Your task to perform on an android device: turn smart compose on in the gmail app Image 0: 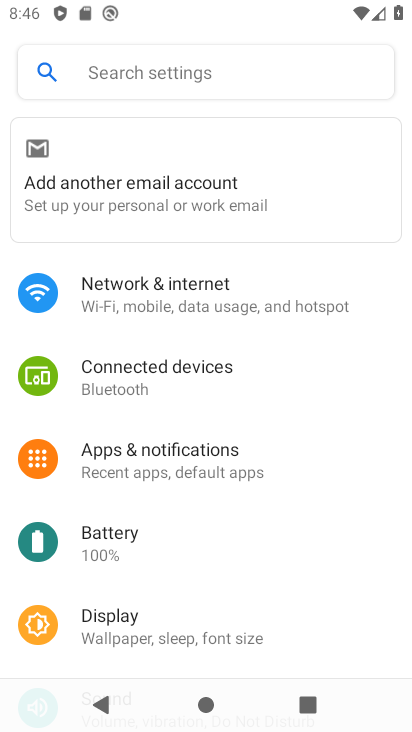
Step 0: press home button
Your task to perform on an android device: turn smart compose on in the gmail app Image 1: 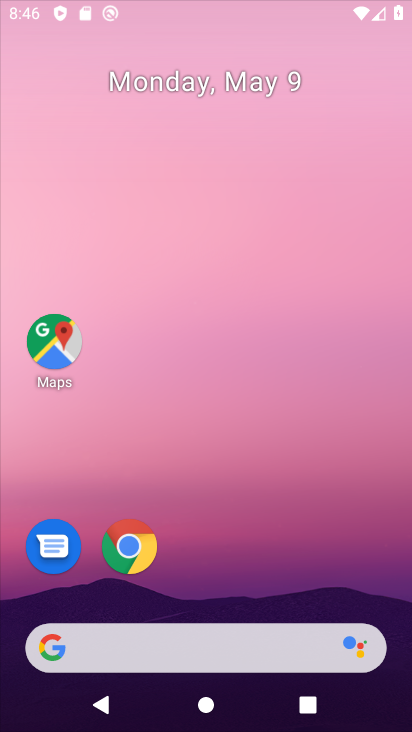
Step 1: drag from (296, 548) to (273, 64)
Your task to perform on an android device: turn smart compose on in the gmail app Image 2: 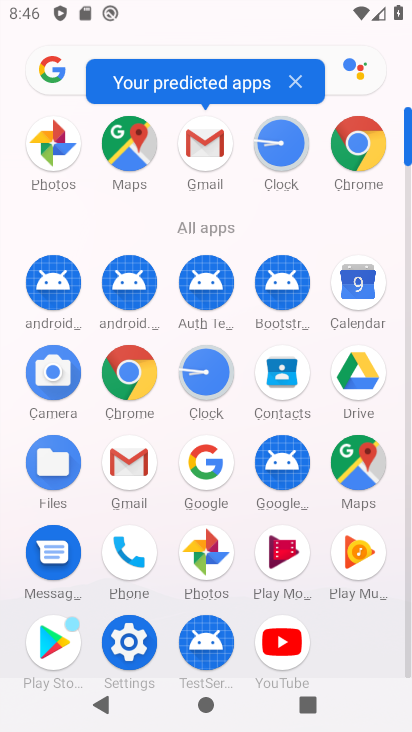
Step 2: click (143, 456)
Your task to perform on an android device: turn smart compose on in the gmail app Image 3: 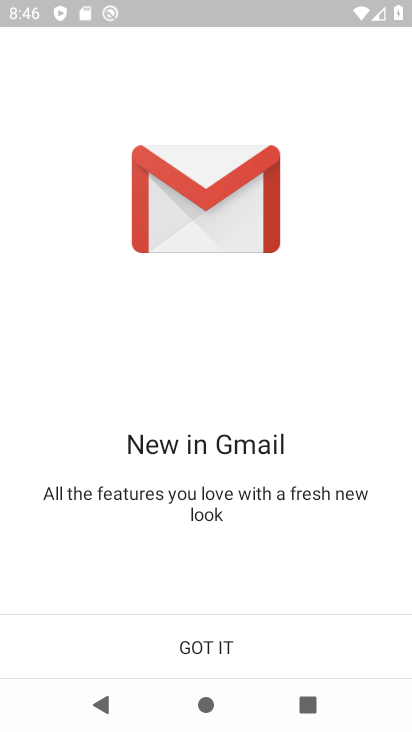
Step 3: click (214, 642)
Your task to perform on an android device: turn smart compose on in the gmail app Image 4: 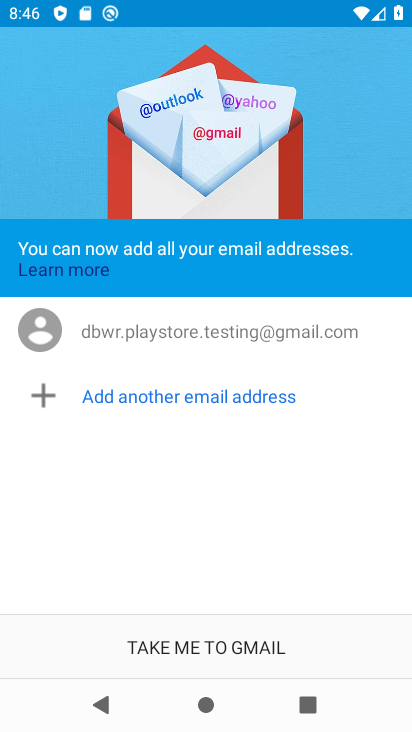
Step 4: click (288, 648)
Your task to perform on an android device: turn smart compose on in the gmail app Image 5: 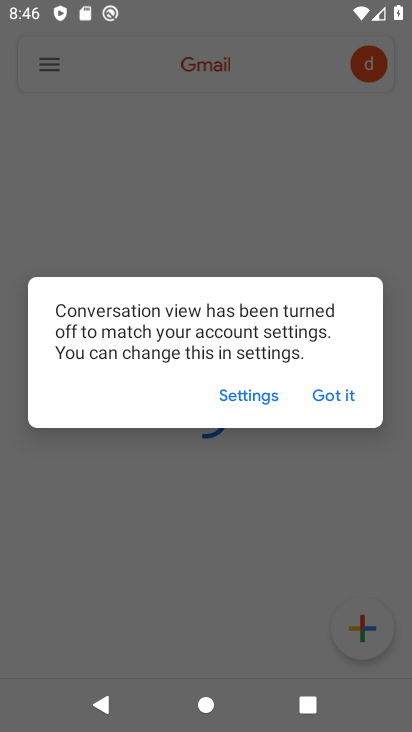
Step 5: click (327, 396)
Your task to perform on an android device: turn smart compose on in the gmail app Image 6: 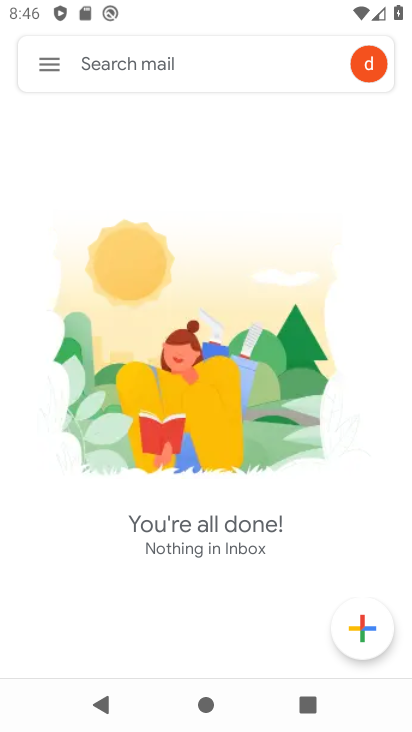
Step 6: click (55, 60)
Your task to perform on an android device: turn smart compose on in the gmail app Image 7: 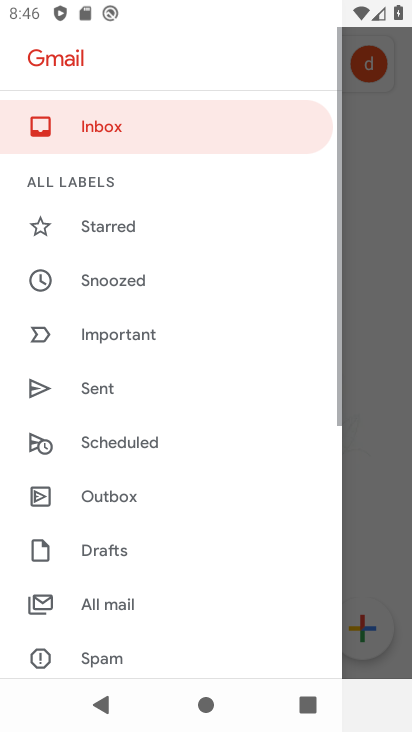
Step 7: drag from (150, 619) to (195, 49)
Your task to perform on an android device: turn smart compose on in the gmail app Image 8: 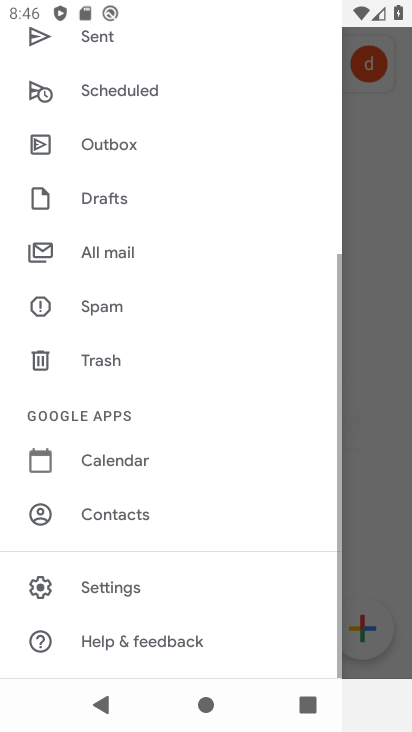
Step 8: click (138, 585)
Your task to perform on an android device: turn smart compose on in the gmail app Image 9: 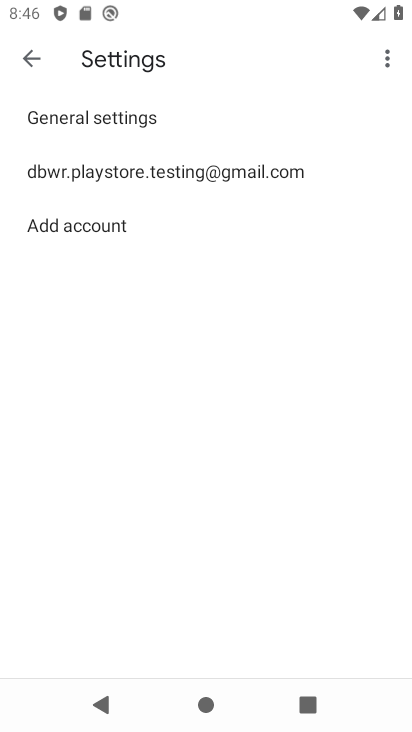
Step 9: click (215, 181)
Your task to perform on an android device: turn smart compose on in the gmail app Image 10: 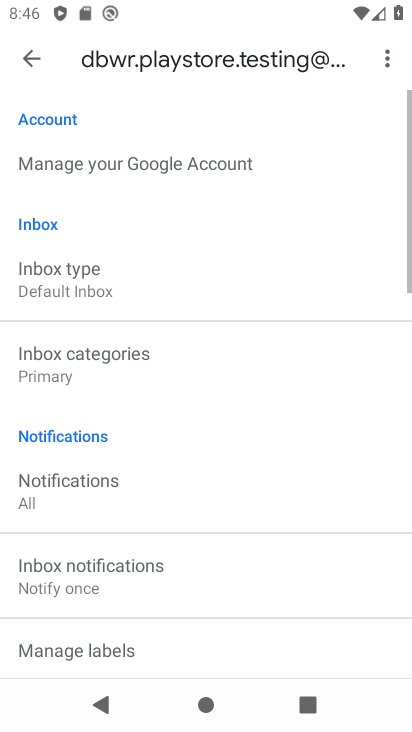
Step 10: task complete